Your task to perform on an android device: star an email in the gmail app Image 0: 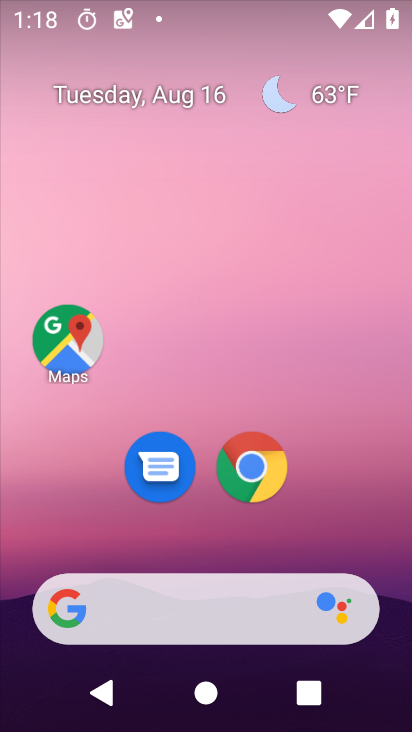
Step 0: drag from (382, 528) to (363, 93)
Your task to perform on an android device: star an email in the gmail app Image 1: 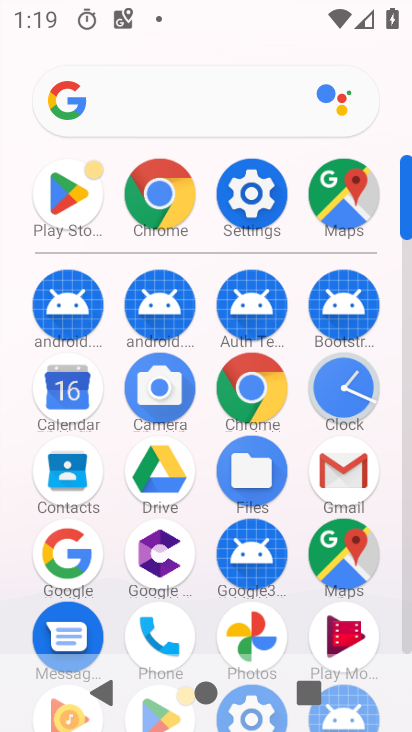
Step 1: click (323, 472)
Your task to perform on an android device: star an email in the gmail app Image 2: 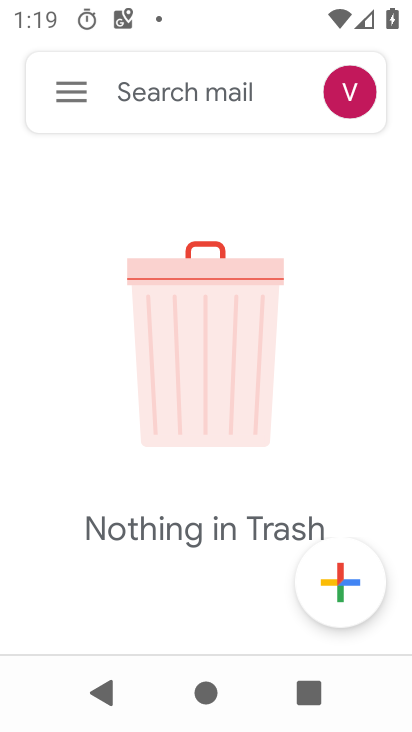
Step 2: click (66, 95)
Your task to perform on an android device: star an email in the gmail app Image 3: 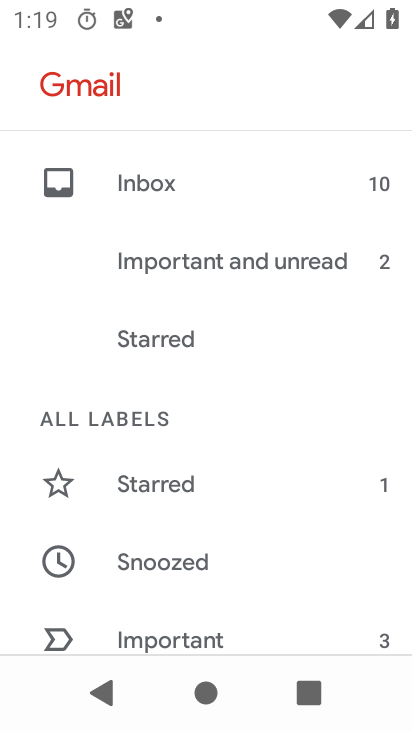
Step 3: drag from (291, 556) to (295, 424)
Your task to perform on an android device: star an email in the gmail app Image 4: 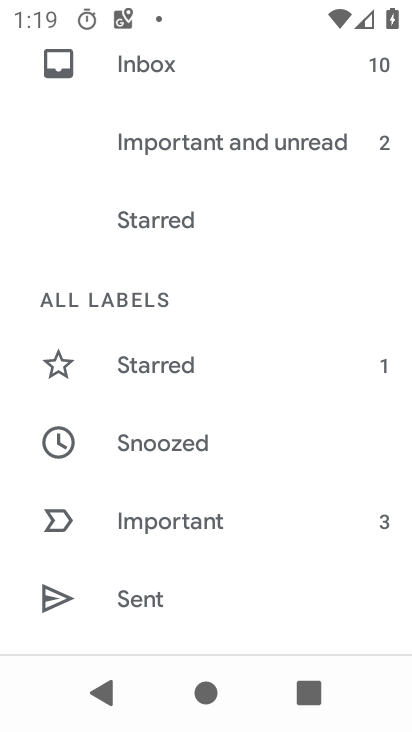
Step 4: drag from (278, 565) to (282, 398)
Your task to perform on an android device: star an email in the gmail app Image 5: 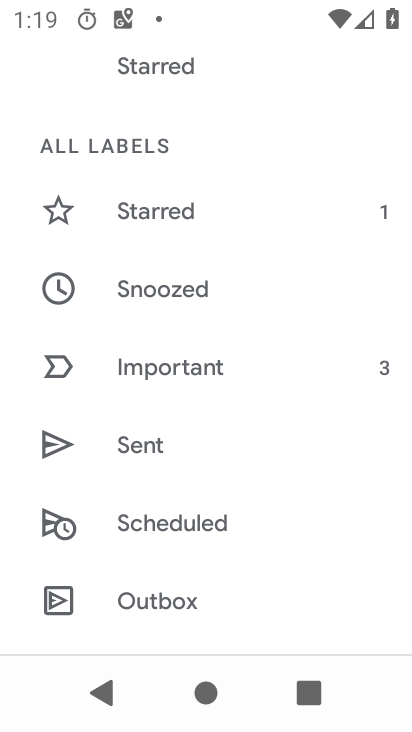
Step 5: drag from (282, 556) to (282, 370)
Your task to perform on an android device: star an email in the gmail app Image 6: 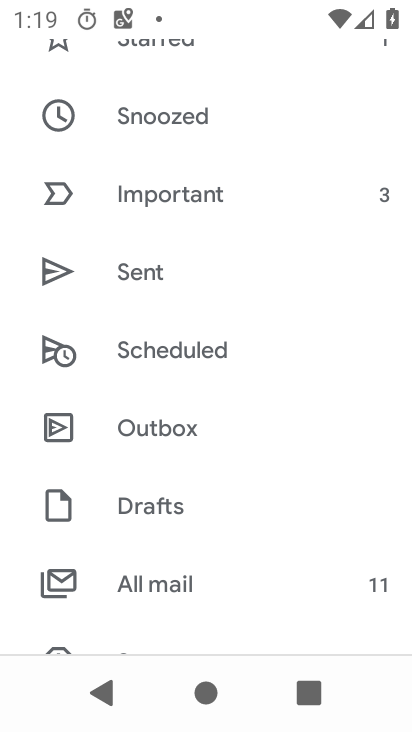
Step 6: drag from (262, 536) to (291, 348)
Your task to perform on an android device: star an email in the gmail app Image 7: 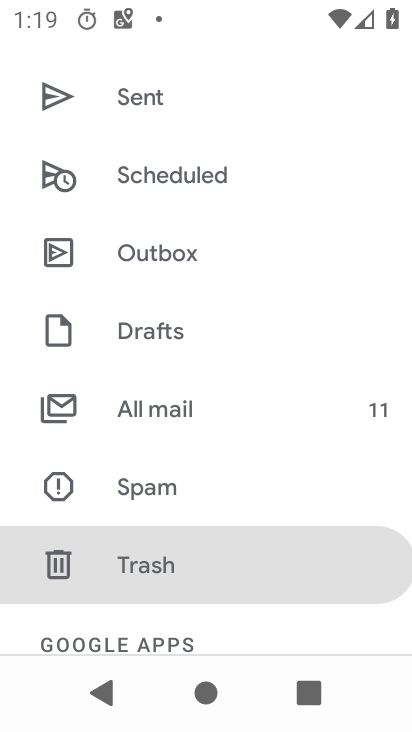
Step 7: drag from (256, 541) to (265, 343)
Your task to perform on an android device: star an email in the gmail app Image 8: 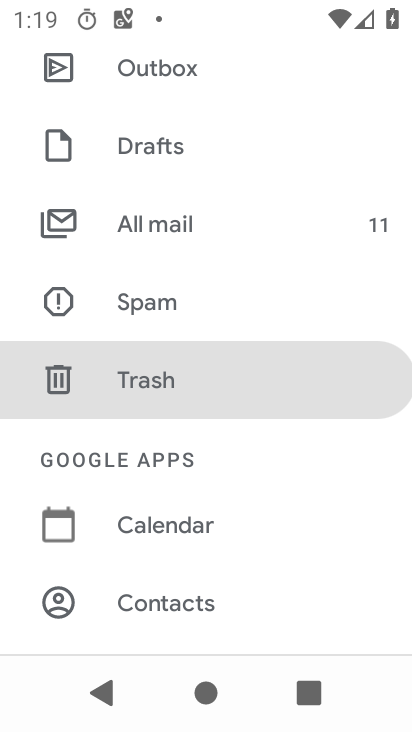
Step 8: drag from (267, 562) to (282, 381)
Your task to perform on an android device: star an email in the gmail app Image 9: 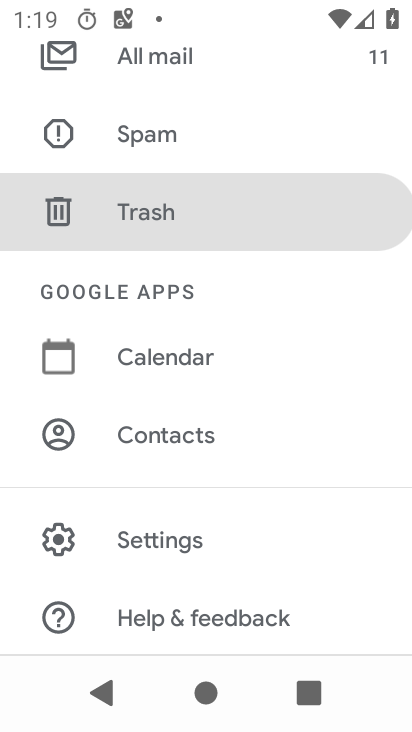
Step 9: drag from (278, 266) to (287, 420)
Your task to perform on an android device: star an email in the gmail app Image 10: 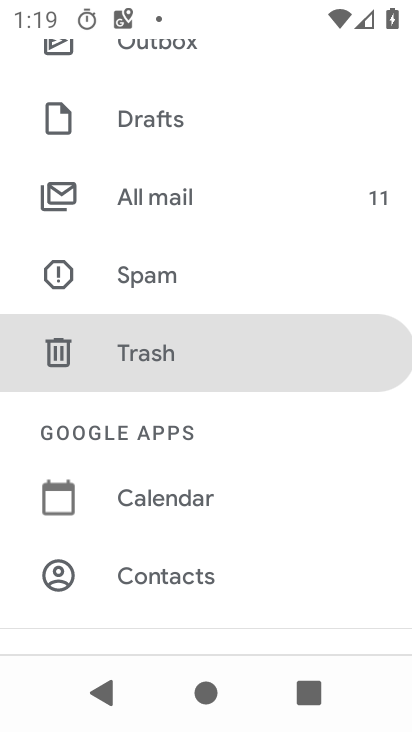
Step 10: drag from (275, 140) to (273, 317)
Your task to perform on an android device: star an email in the gmail app Image 11: 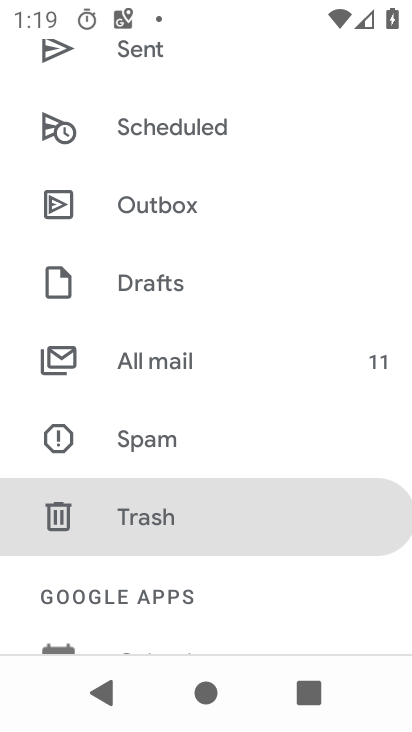
Step 11: drag from (282, 126) to (287, 329)
Your task to perform on an android device: star an email in the gmail app Image 12: 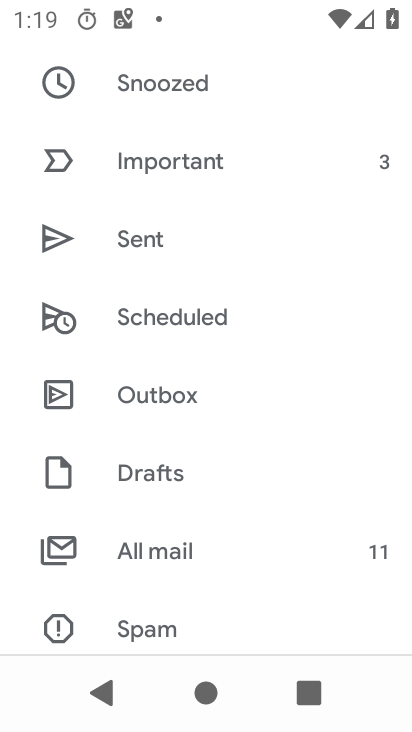
Step 12: drag from (287, 103) to (290, 322)
Your task to perform on an android device: star an email in the gmail app Image 13: 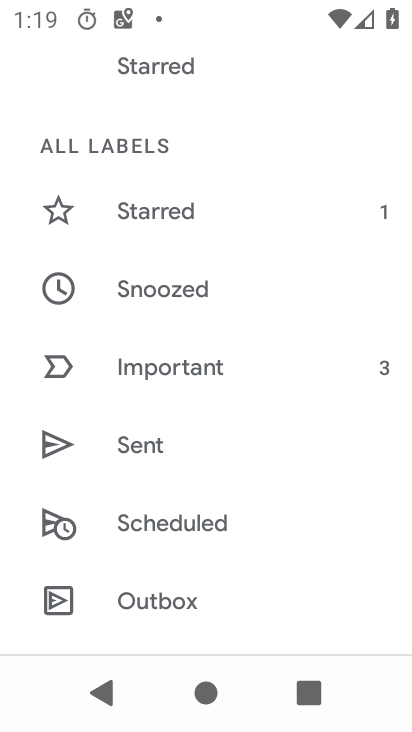
Step 13: drag from (271, 176) to (285, 397)
Your task to perform on an android device: star an email in the gmail app Image 14: 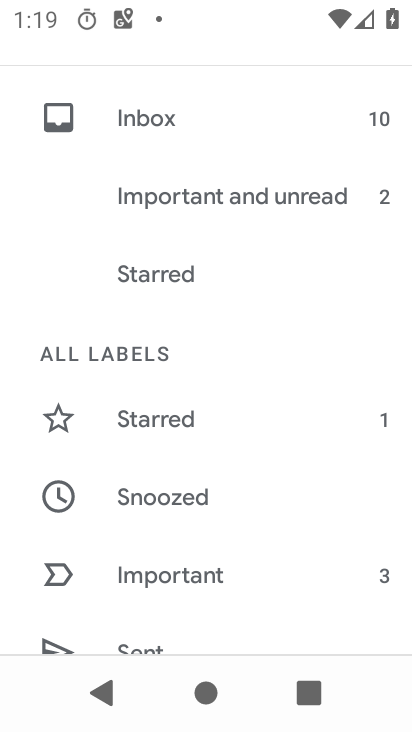
Step 14: drag from (264, 147) to (275, 388)
Your task to perform on an android device: star an email in the gmail app Image 15: 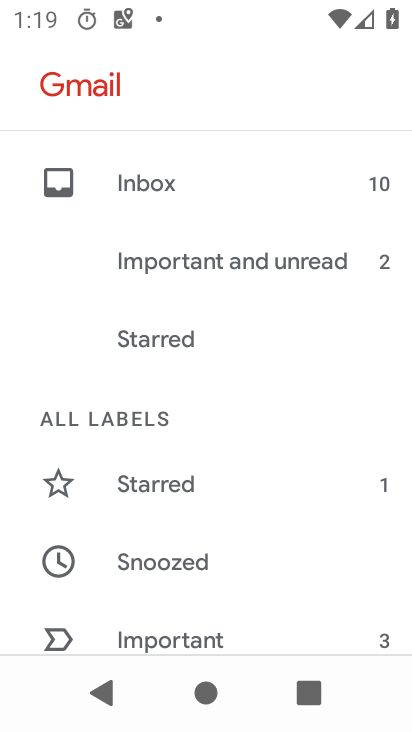
Step 15: click (173, 176)
Your task to perform on an android device: star an email in the gmail app Image 16: 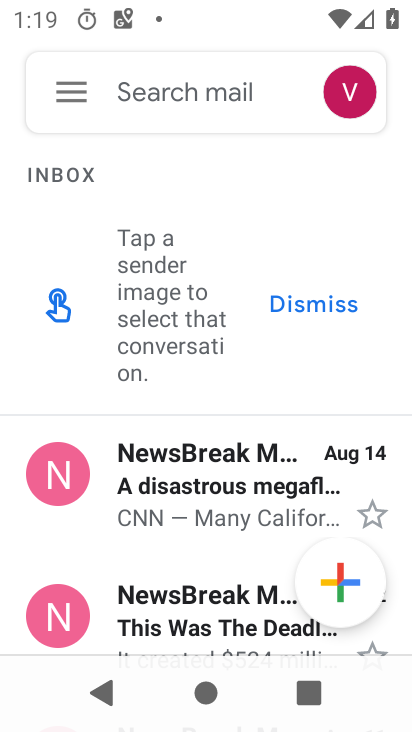
Step 16: click (364, 516)
Your task to perform on an android device: star an email in the gmail app Image 17: 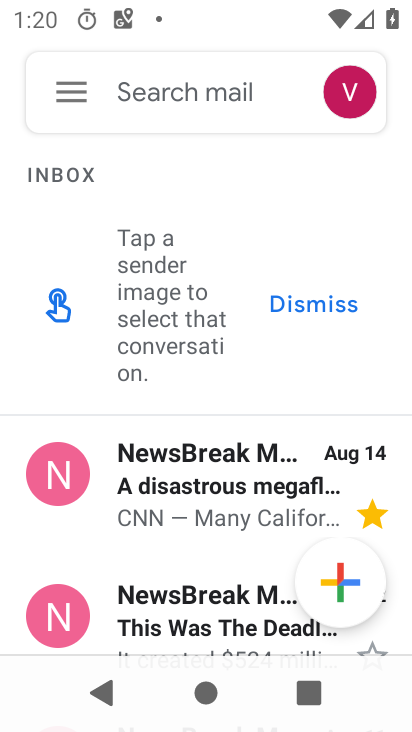
Step 17: task complete